Your task to perform on an android device: Go to network settings Image 0: 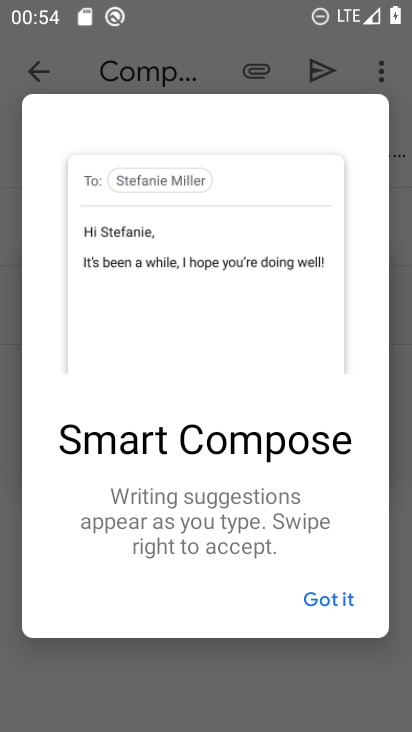
Step 0: press home button
Your task to perform on an android device: Go to network settings Image 1: 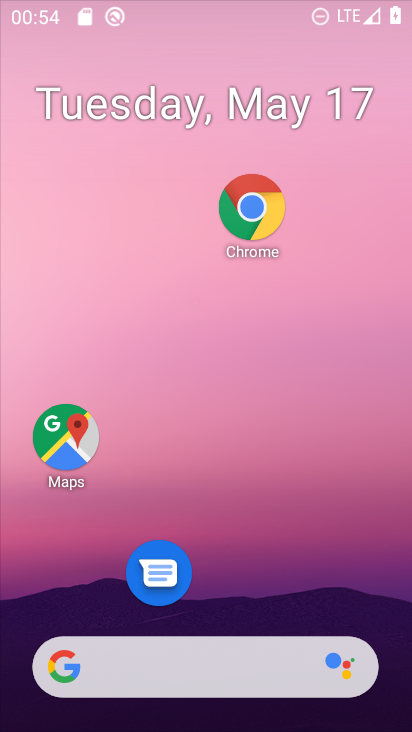
Step 1: drag from (292, 646) to (292, 107)
Your task to perform on an android device: Go to network settings Image 2: 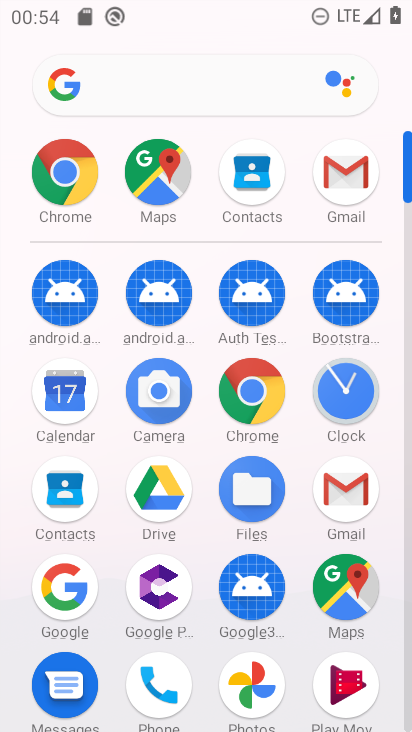
Step 2: drag from (307, 594) to (354, 149)
Your task to perform on an android device: Go to network settings Image 3: 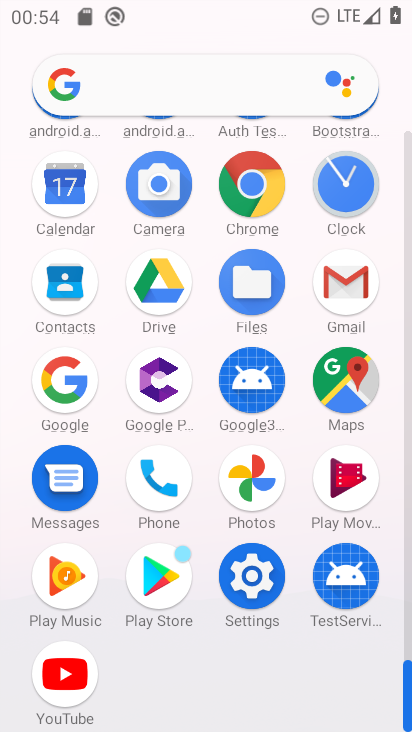
Step 3: click (269, 610)
Your task to perform on an android device: Go to network settings Image 4: 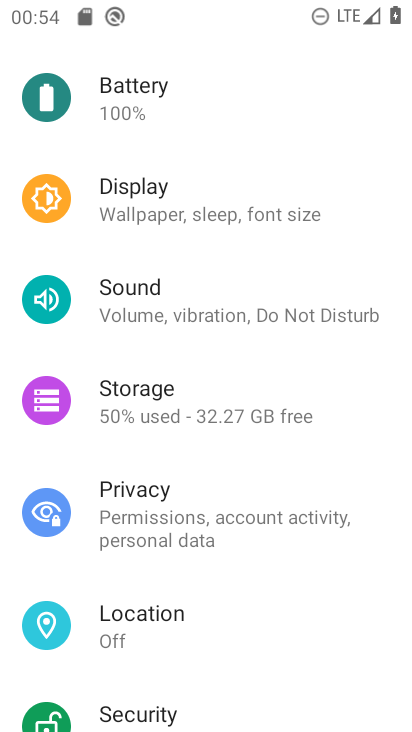
Step 4: drag from (248, 273) to (301, 700)
Your task to perform on an android device: Go to network settings Image 5: 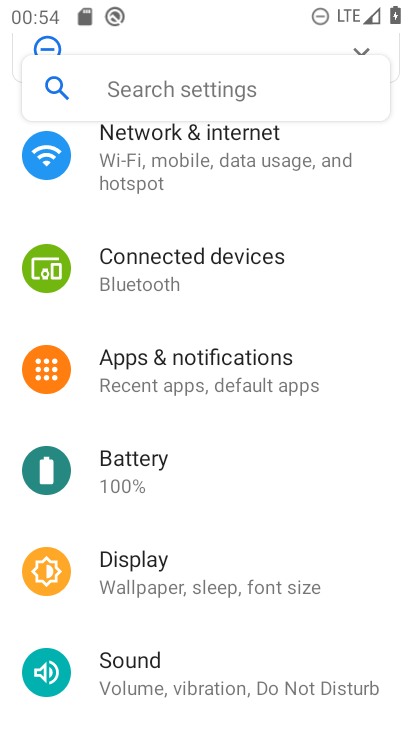
Step 5: drag from (227, 348) to (322, 714)
Your task to perform on an android device: Go to network settings Image 6: 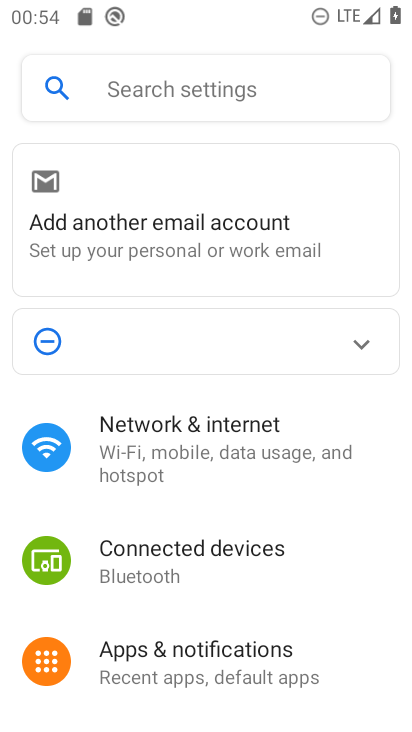
Step 6: click (208, 462)
Your task to perform on an android device: Go to network settings Image 7: 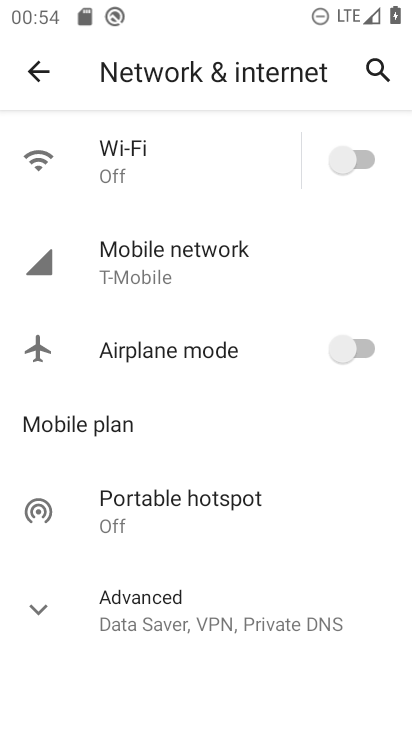
Step 7: click (196, 272)
Your task to perform on an android device: Go to network settings Image 8: 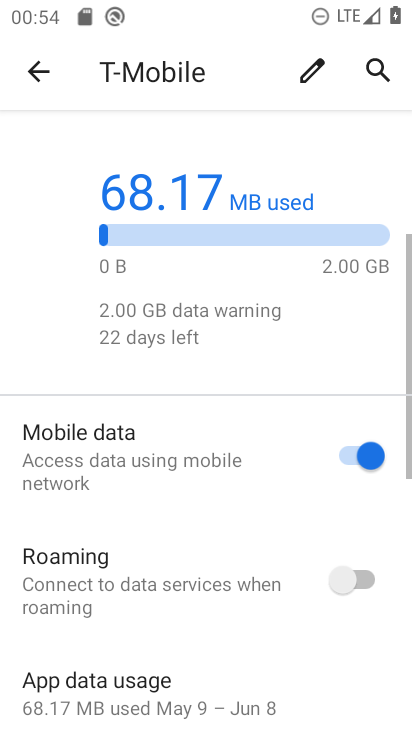
Step 8: task complete